Your task to perform on an android device: What's the weather going to be this weekend? Image 0: 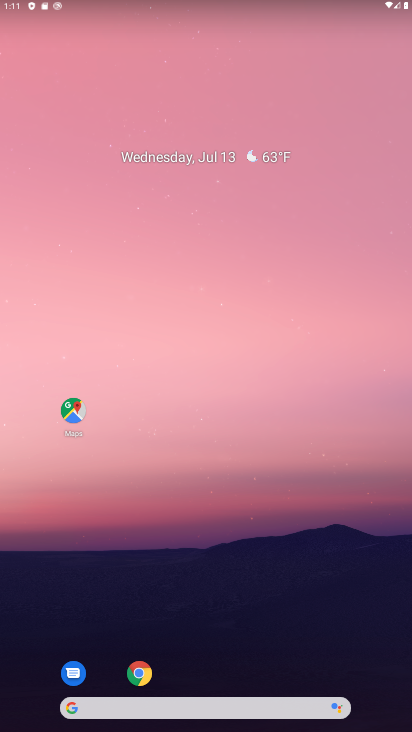
Step 0: drag from (340, 604) to (330, 188)
Your task to perform on an android device: What's the weather going to be this weekend? Image 1: 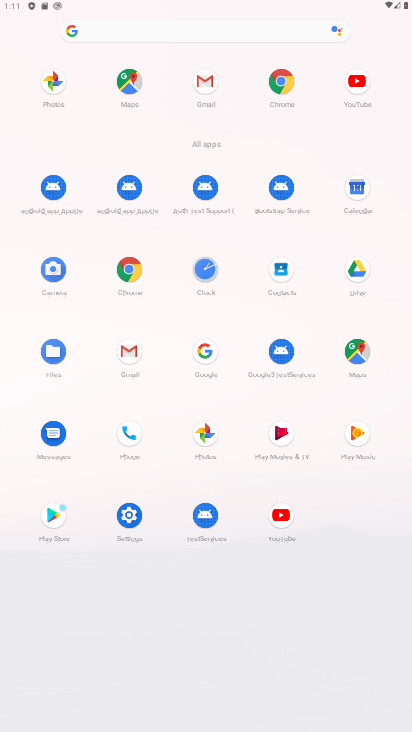
Step 1: click (283, 76)
Your task to perform on an android device: What's the weather going to be this weekend? Image 2: 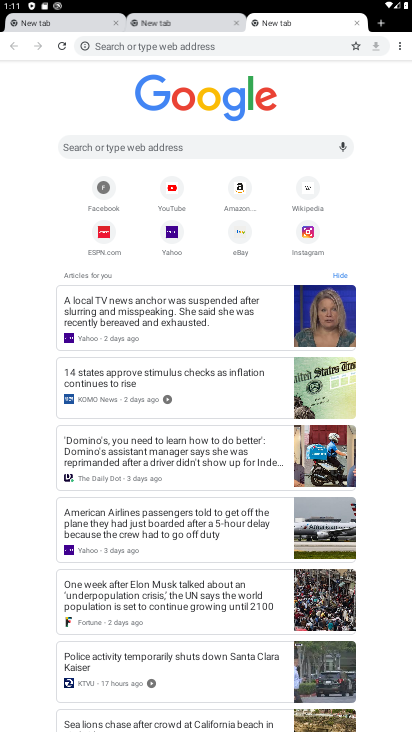
Step 2: click (130, 141)
Your task to perform on an android device: What's the weather going to be this weekend? Image 3: 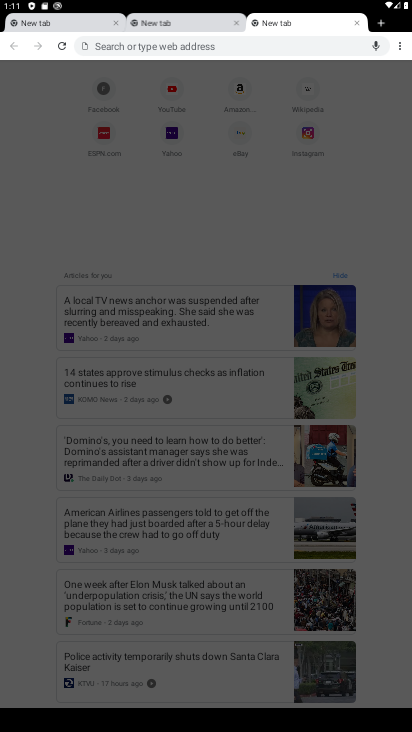
Step 3: type "What's the weather going to be this weekend "
Your task to perform on an android device: What's the weather going to be this weekend? Image 4: 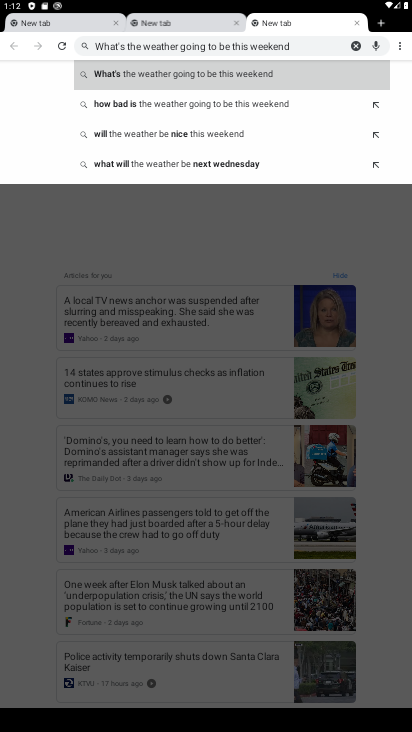
Step 4: click (243, 66)
Your task to perform on an android device: What's the weather going to be this weekend? Image 5: 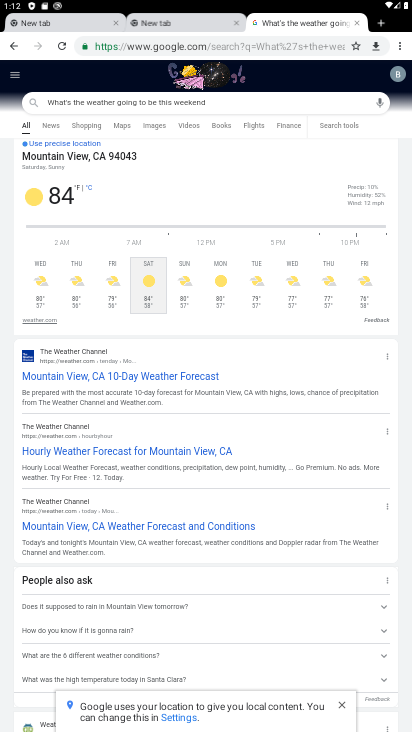
Step 5: task complete